Your task to perform on an android device: Go to CNN.com Image 0: 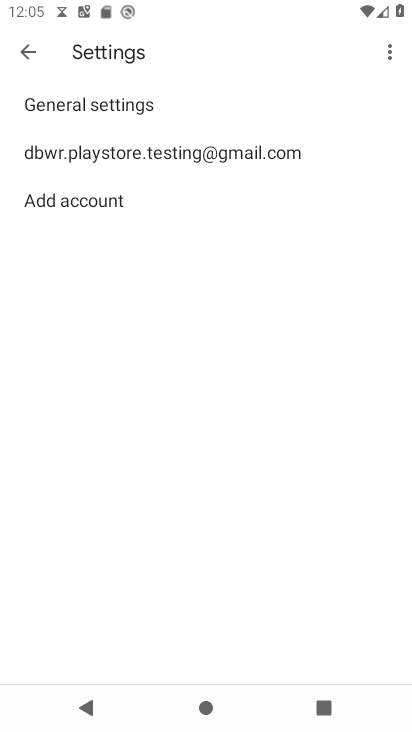
Step 0: press home button
Your task to perform on an android device: Go to CNN.com Image 1: 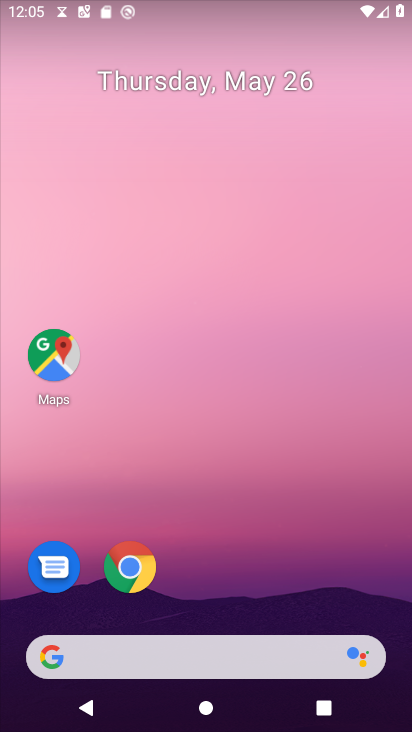
Step 1: click (136, 571)
Your task to perform on an android device: Go to CNN.com Image 2: 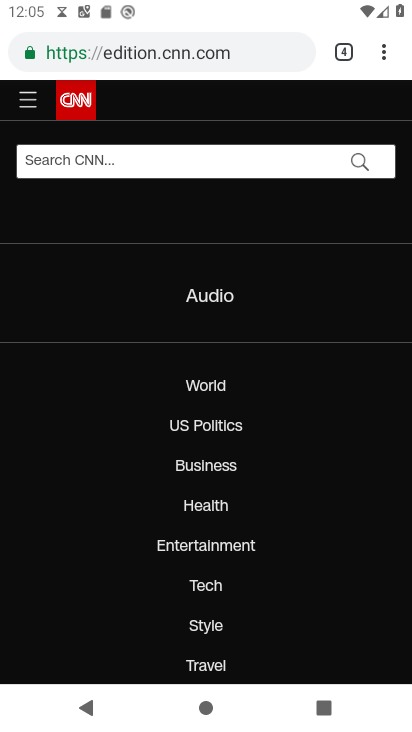
Step 2: task complete